Your task to perform on an android device: Go to Wikipedia Image 0: 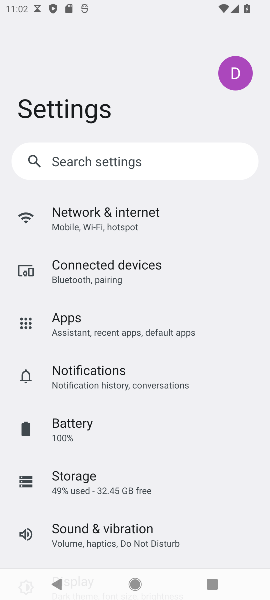
Step 0: press home button
Your task to perform on an android device: Go to Wikipedia Image 1: 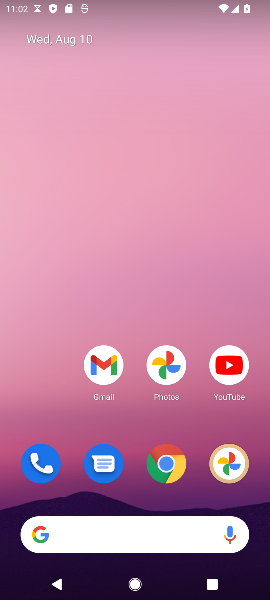
Step 1: click (78, 532)
Your task to perform on an android device: Go to Wikipedia Image 2: 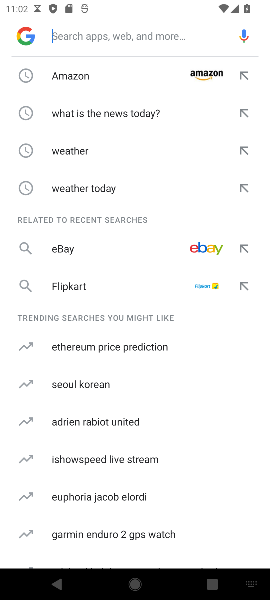
Step 2: type "Wikipedia"
Your task to perform on an android device: Go to Wikipedia Image 3: 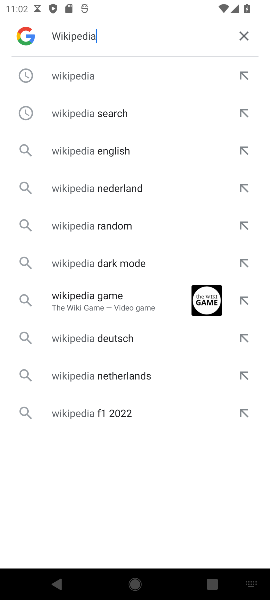
Step 3: click (50, 74)
Your task to perform on an android device: Go to Wikipedia Image 4: 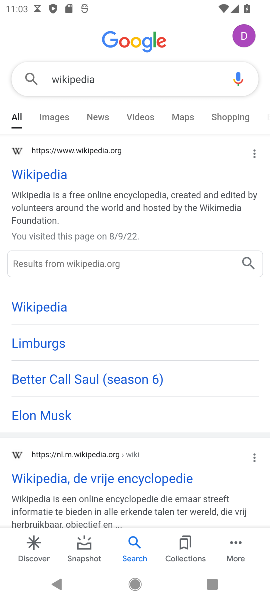
Step 4: task complete